Your task to perform on an android device: toggle wifi Image 0: 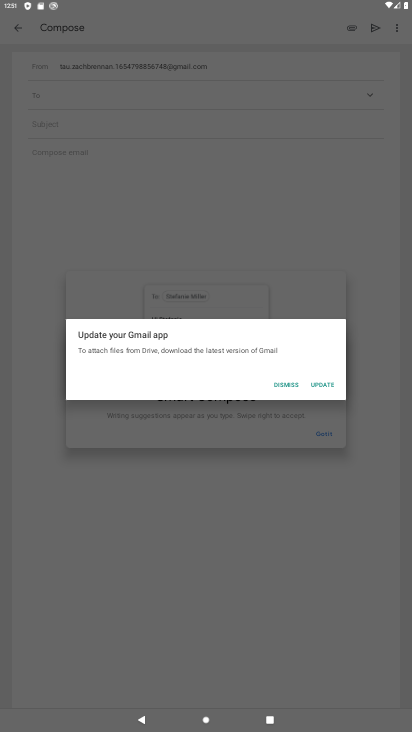
Step 0: press home button
Your task to perform on an android device: toggle wifi Image 1: 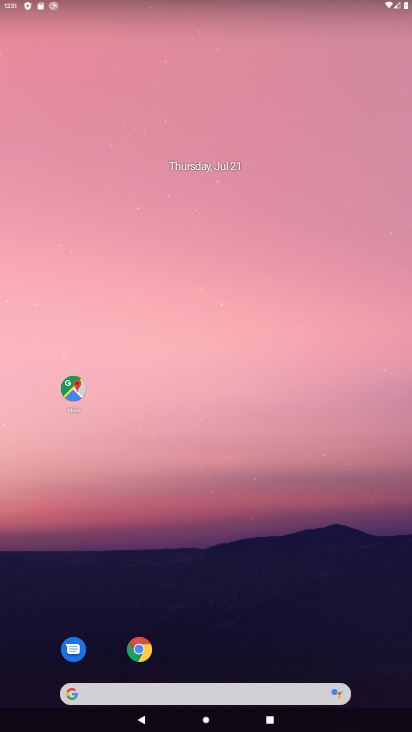
Step 1: drag from (199, 693) to (157, 307)
Your task to perform on an android device: toggle wifi Image 2: 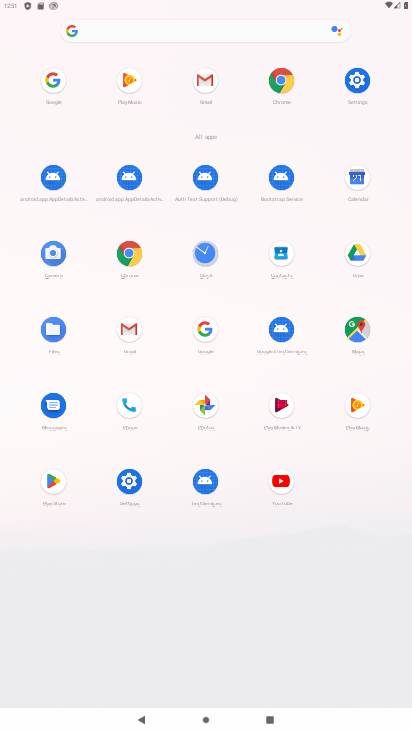
Step 2: click (352, 82)
Your task to perform on an android device: toggle wifi Image 3: 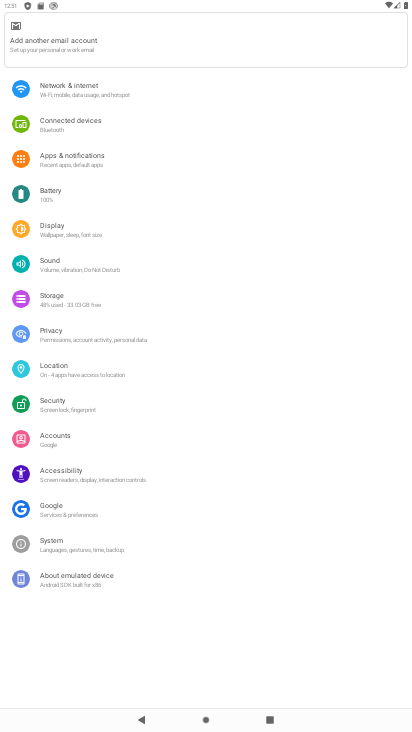
Step 3: click (59, 90)
Your task to perform on an android device: toggle wifi Image 4: 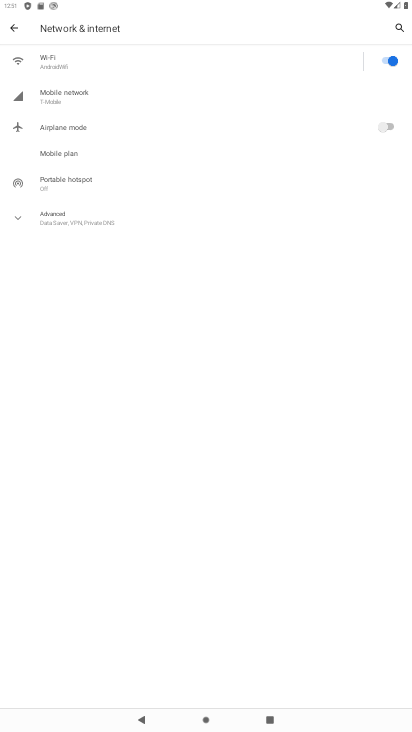
Step 4: click (69, 55)
Your task to perform on an android device: toggle wifi Image 5: 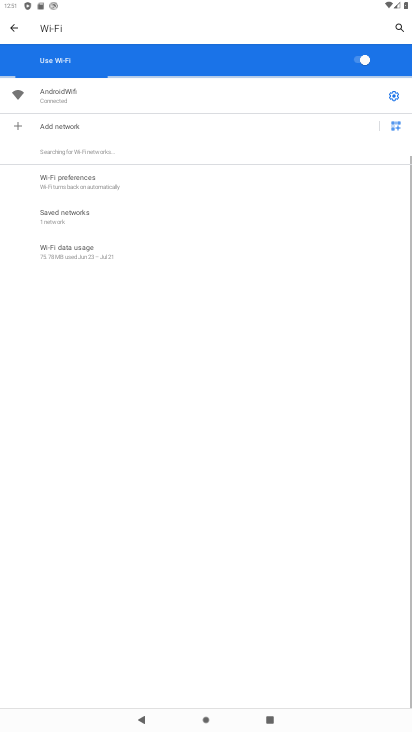
Step 5: click (349, 64)
Your task to perform on an android device: toggle wifi Image 6: 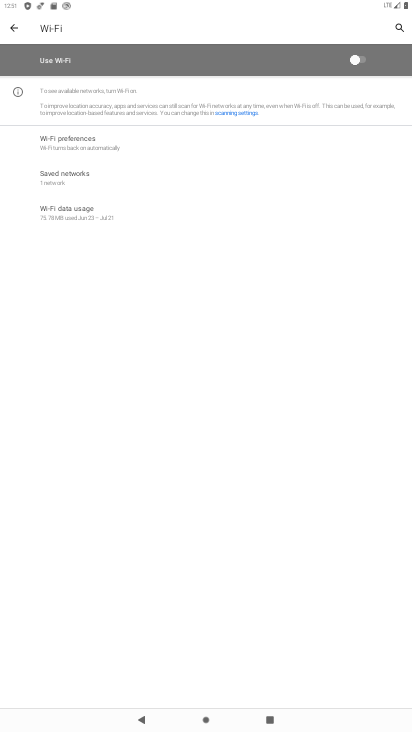
Step 6: task complete